Your task to perform on an android device: Go to CNN.com Image 0: 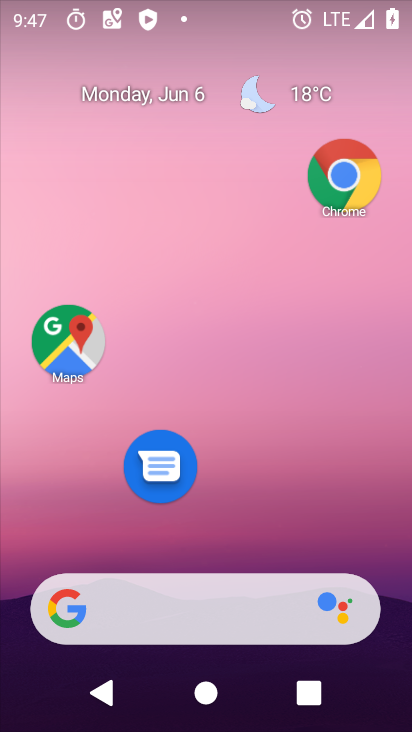
Step 0: drag from (206, 527) to (192, 0)
Your task to perform on an android device: Go to CNN.com Image 1: 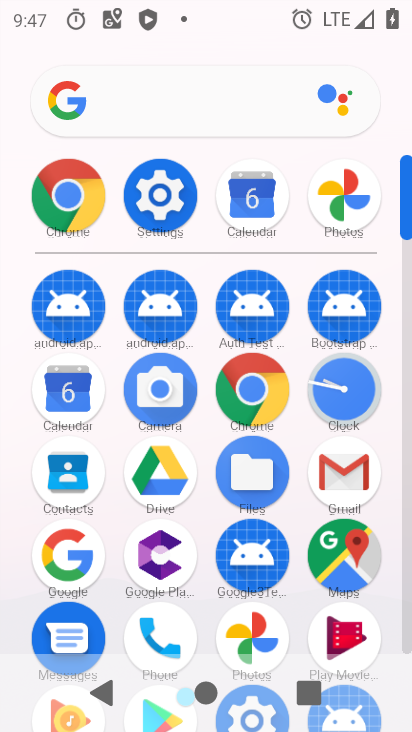
Step 1: click (161, 113)
Your task to perform on an android device: Go to CNN.com Image 2: 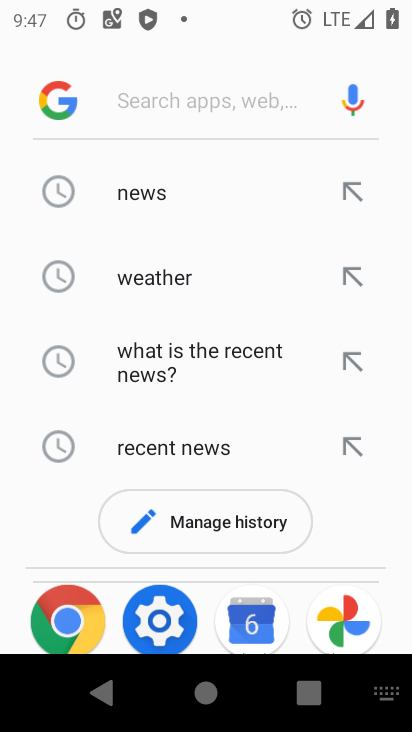
Step 2: type " CNN.com"
Your task to perform on an android device: Go to CNN.com Image 3: 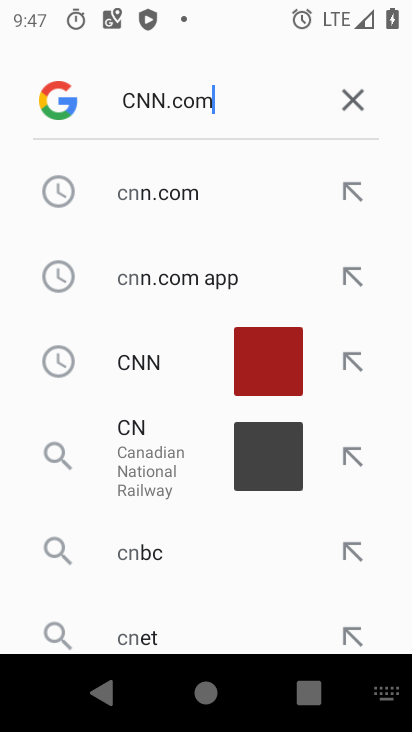
Step 3: type ""
Your task to perform on an android device: Go to CNN.com Image 4: 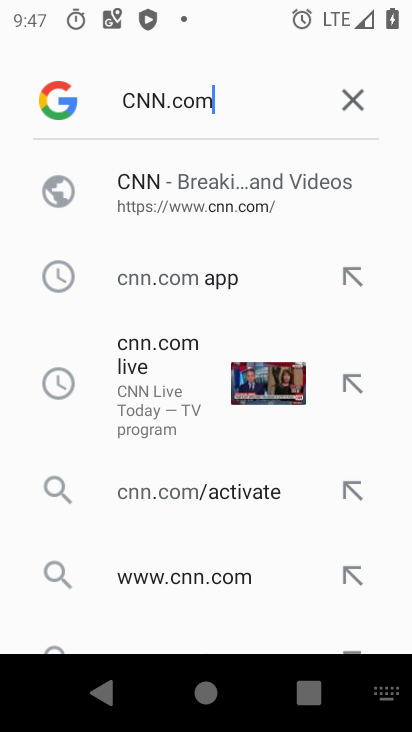
Step 4: click (165, 199)
Your task to perform on an android device: Go to CNN.com Image 5: 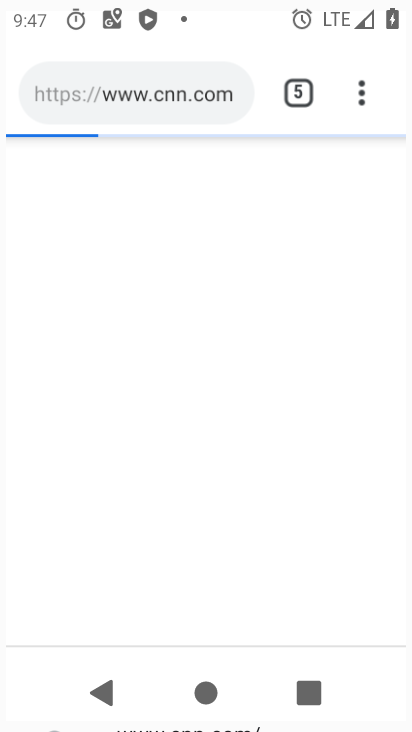
Step 5: task complete